Your task to perform on an android device: Go to sound settings Image 0: 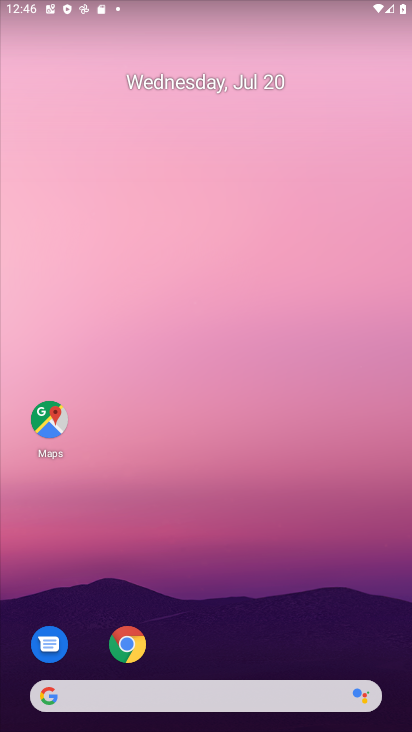
Step 0: press home button
Your task to perform on an android device: Go to sound settings Image 1: 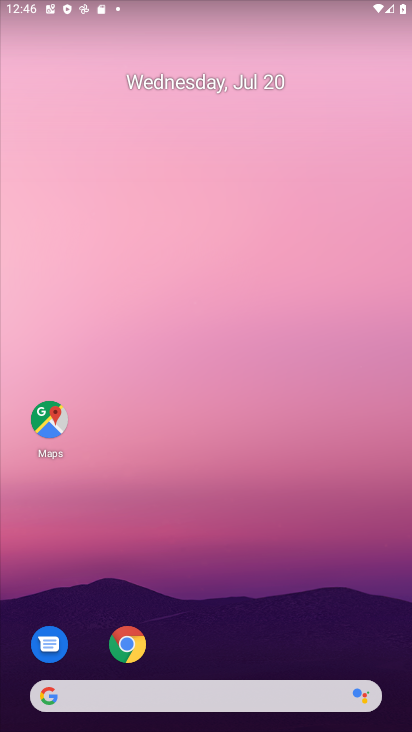
Step 1: press home button
Your task to perform on an android device: Go to sound settings Image 2: 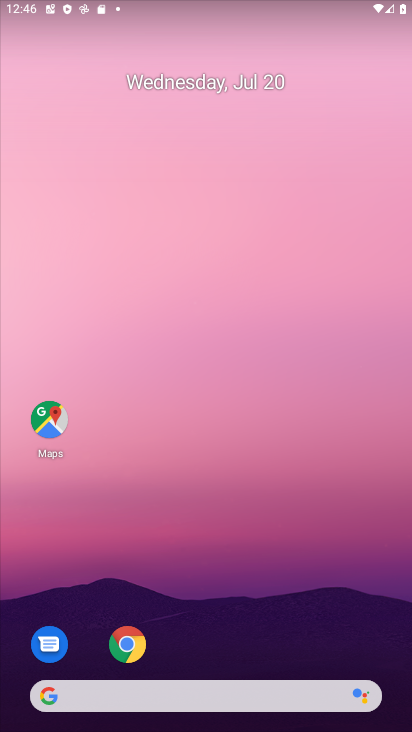
Step 2: drag from (226, 621) to (219, 118)
Your task to perform on an android device: Go to sound settings Image 3: 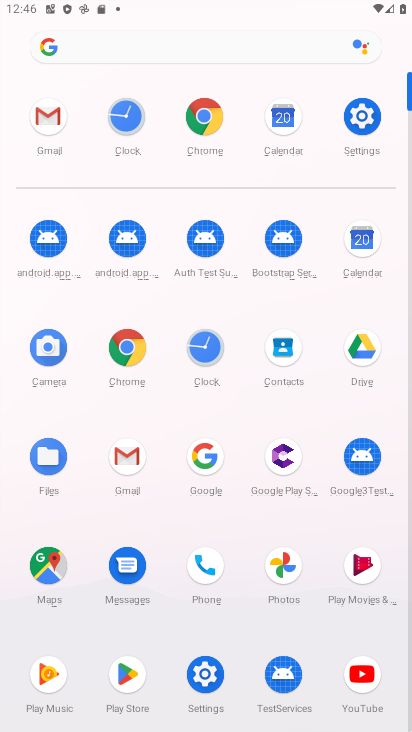
Step 3: click (217, 677)
Your task to perform on an android device: Go to sound settings Image 4: 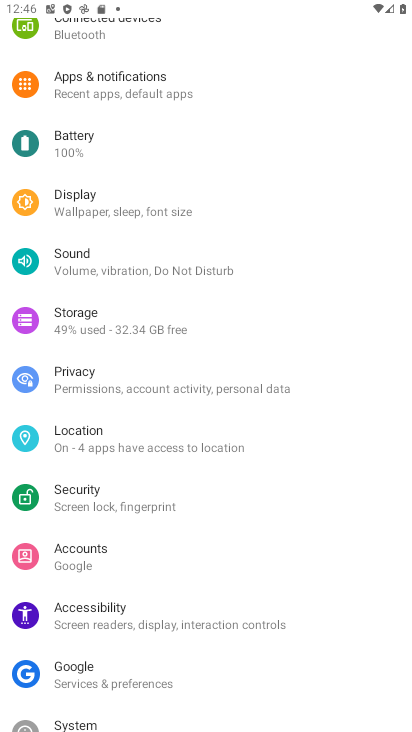
Step 4: click (107, 260)
Your task to perform on an android device: Go to sound settings Image 5: 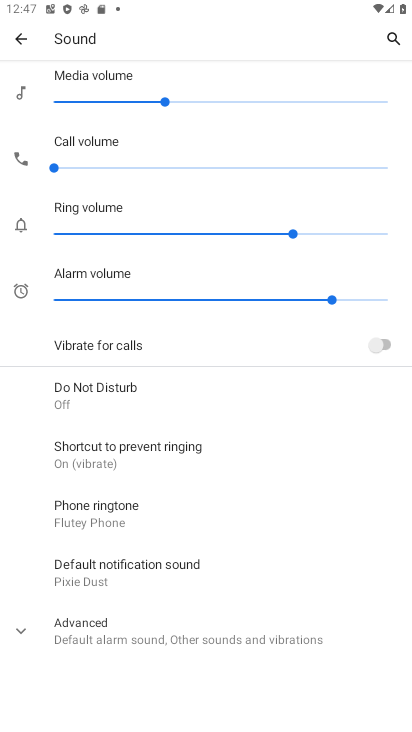
Step 5: task complete